Your task to perform on an android device: toggle airplane mode Image 0: 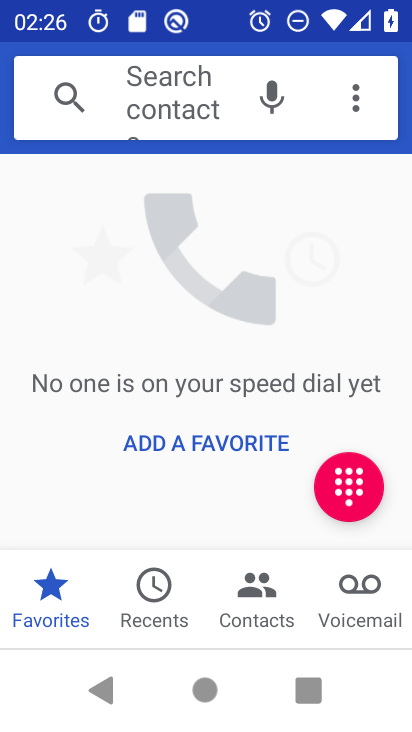
Step 0: press home button
Your task to perform on an android device: toggle airplane mode Image 1: 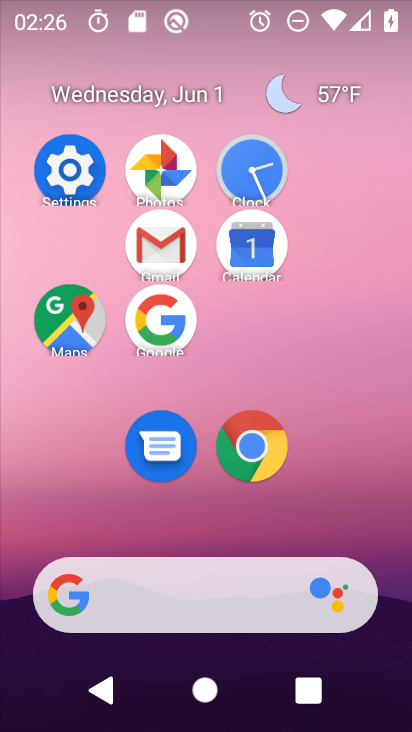
Step 1: click (93, 156)
Your task to perform on an android device: toggle airplane mode Image 2: 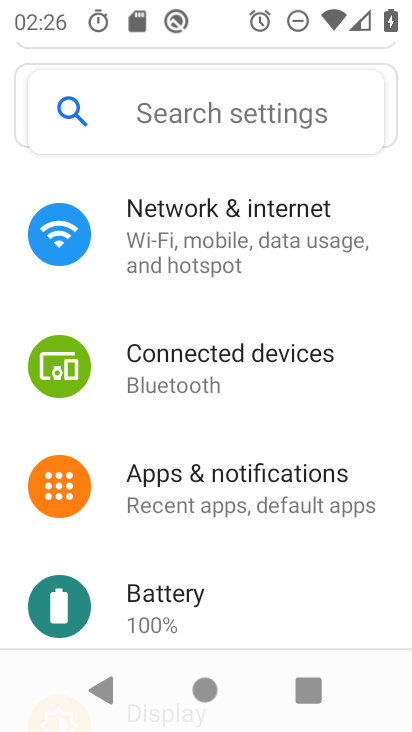
Step 2: click (289, 257)
Your task to perform on an android device: toggle airplane mode Image 3: 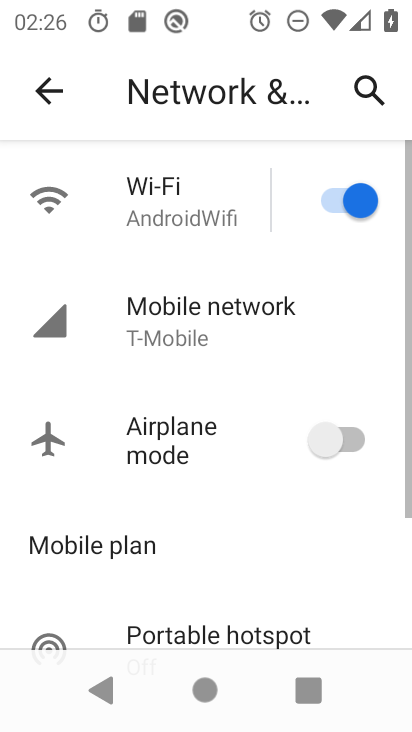
Step 3: click (333, 439)
Your task to perform on an android device: toggle airplane mode Image 4: 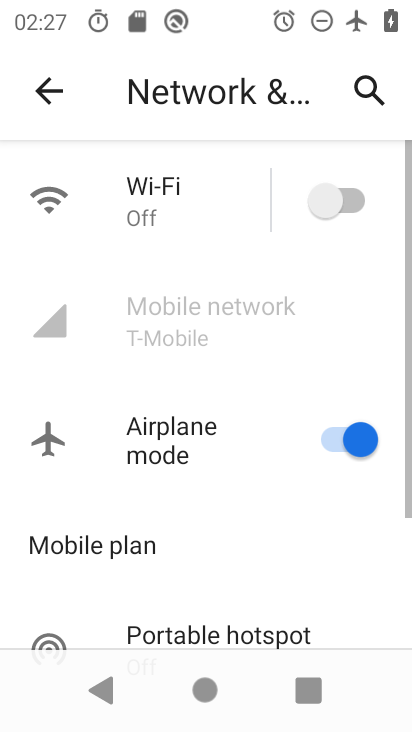
Step 4: task complete